Your task to perform on an android device: turn off javascript in the chrome app Image 0: 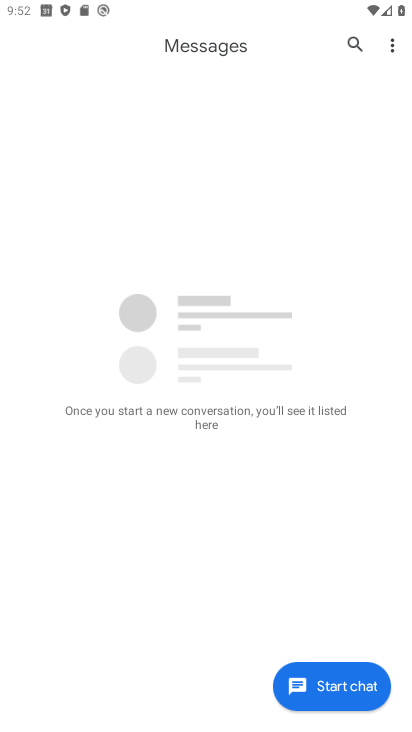
Step 0: press home button
Your task to perform on an android device: turn off javascript in the chrome app Image 1: 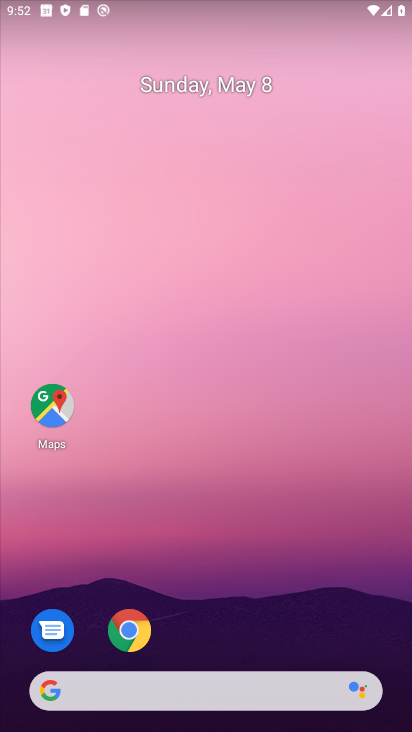
Step 1: drag from (209, 730) to (160, 225)
Your task to perform on an android device: turn off javascript in the chrome app Image 2: 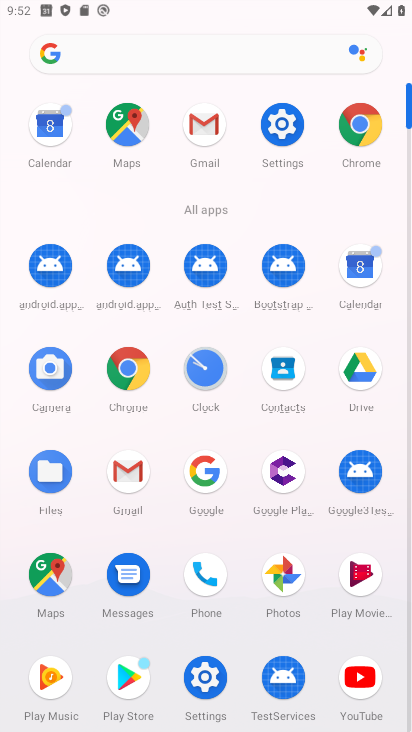
Step 2: click (364, 116)
Your task to perform on an android device: turn off javascript in the chrome app Image 3: 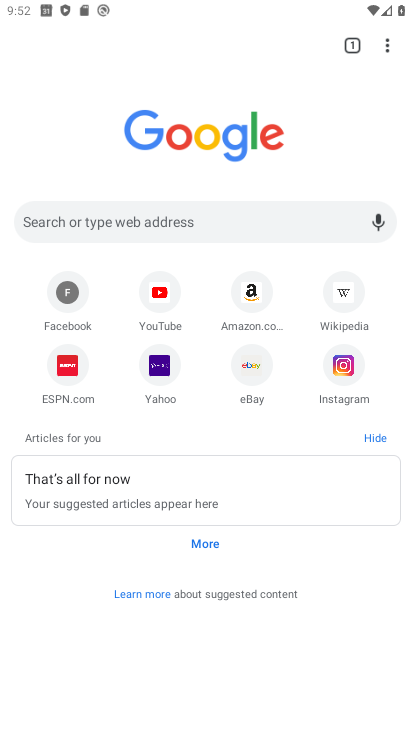
Step 3: click (388, 49)
Your task to perform on an android device: turn off javascript in the chrome app Image 4: 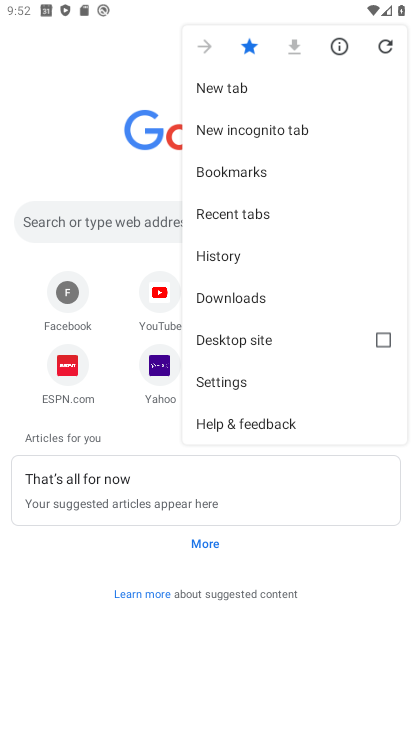
Step 4: click (224, 379)
Your task to perform on an android device: turn off javascript in the chrome app Image 5: 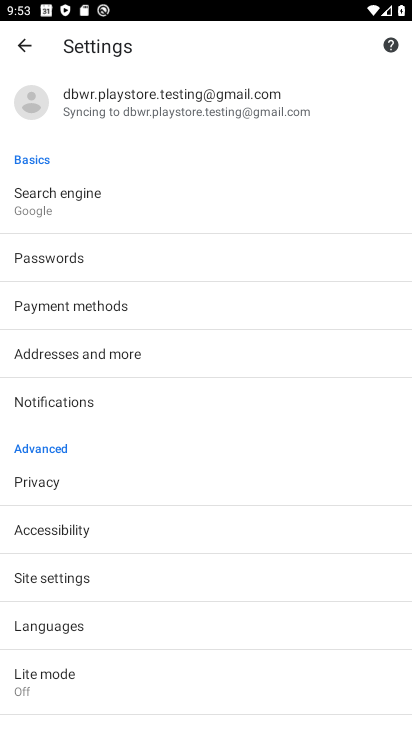
Step 5: drag from (93, 622) to (89, 479)
Your task to perform on an android device: turn off javascript in the chrome app Image 6: 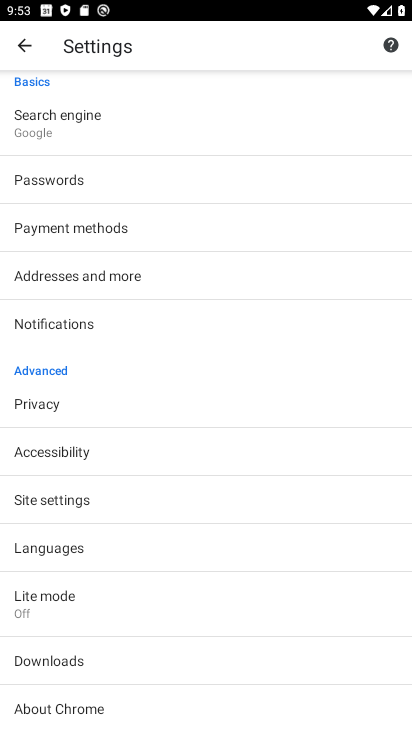
Step 6: click (55, 495)
Your task to perform on an android device: turn off javascript in the chrome app Image 7: 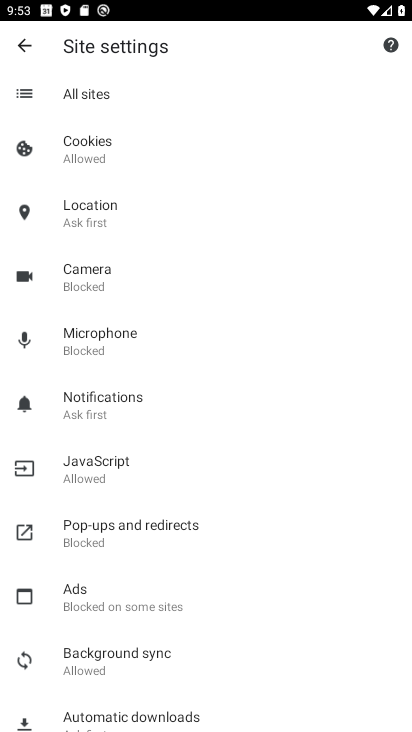
Step 7: click (116, 460)
Your task to perform on an android device: turn off javascript in the chrome app Image 8: 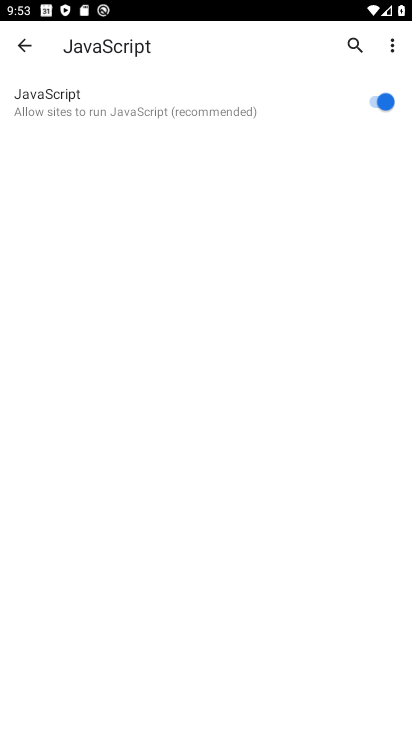
Step 8: click (376, 105)
Your task to perform on an android device: turn off javascript in the chrome app Image 9: 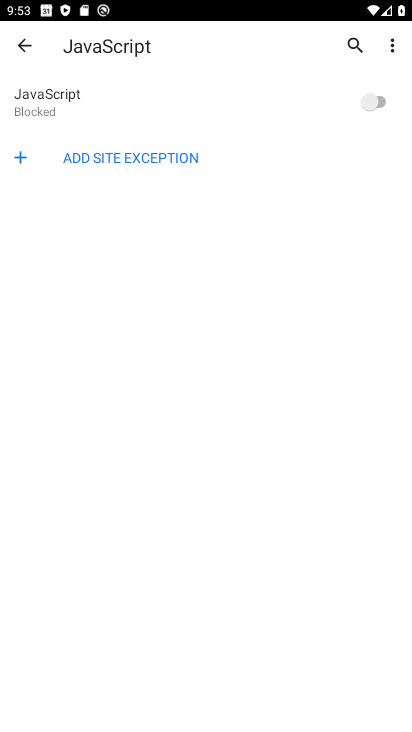
Step 9: task complete